Your task to perform on an android device: Clear the cart on ebay. Search for razer blade on ebay, select the first entry, add it to the cart, then select checkout. Image 0: 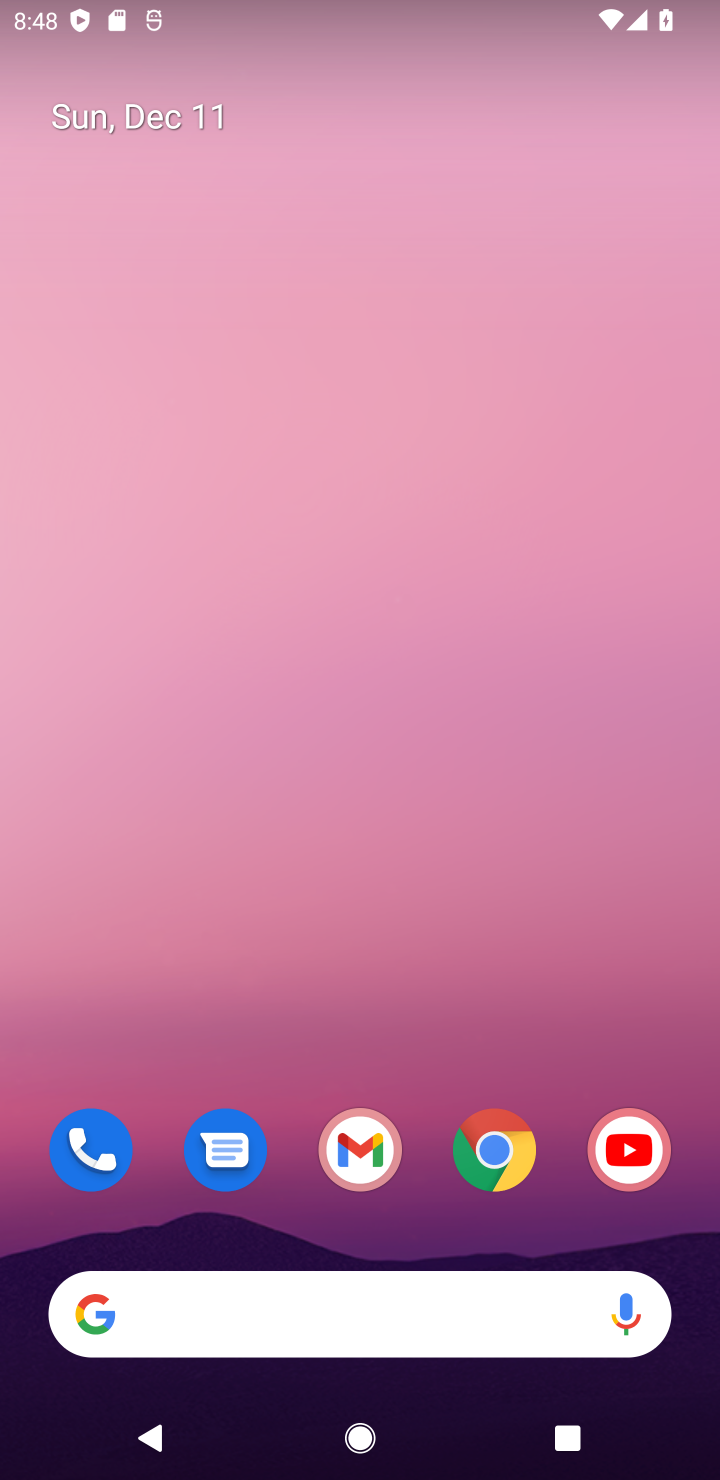
Step 0: click (493, 1151)
Your task to perform on an android device: Clear the cart on ebay. Search for razer blade on ebay, select the first entry, add it to the cart, then select checkout. Image 1: 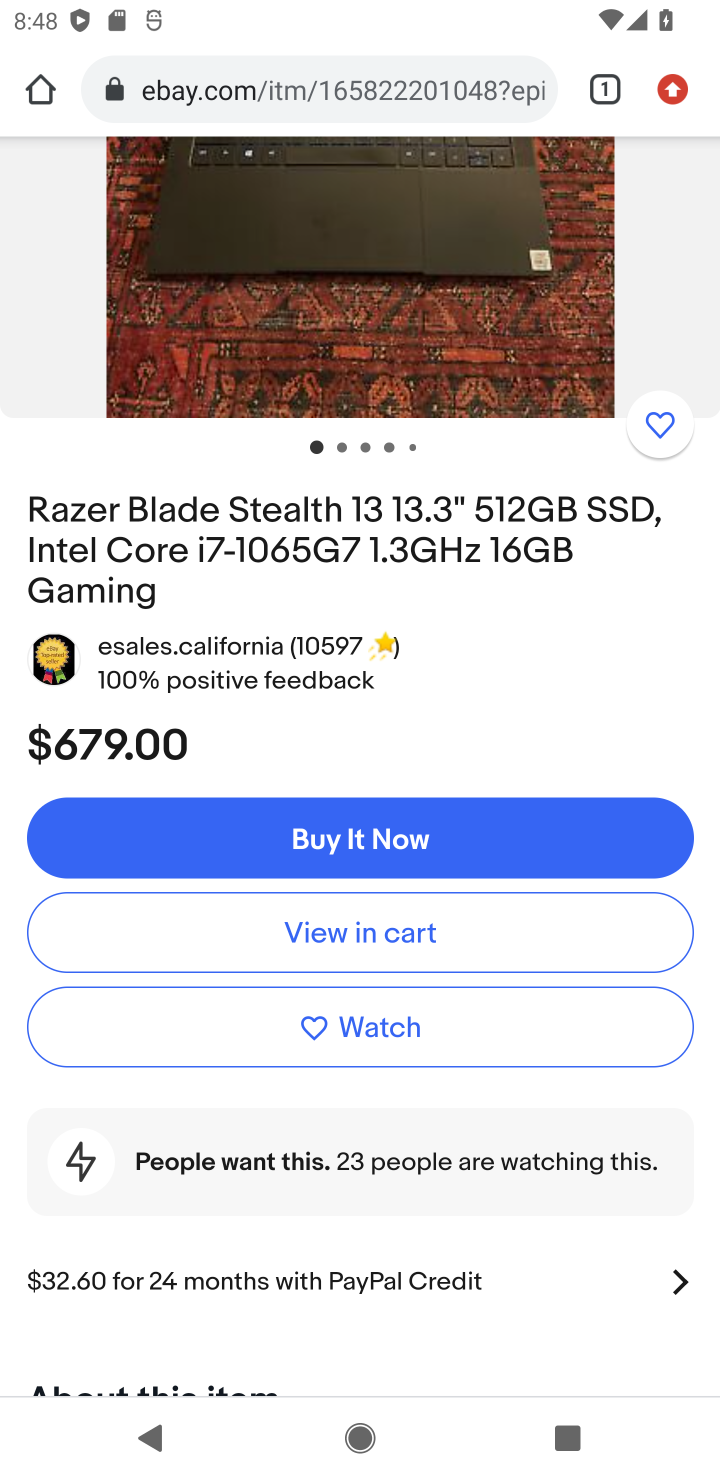
Step 1: click (367, 87)
Your task to perform on an android device: Clear the cart on ebay. Search for razer blade on ebay, select the first entry, add it to the cart, then select checkout. Image 2: 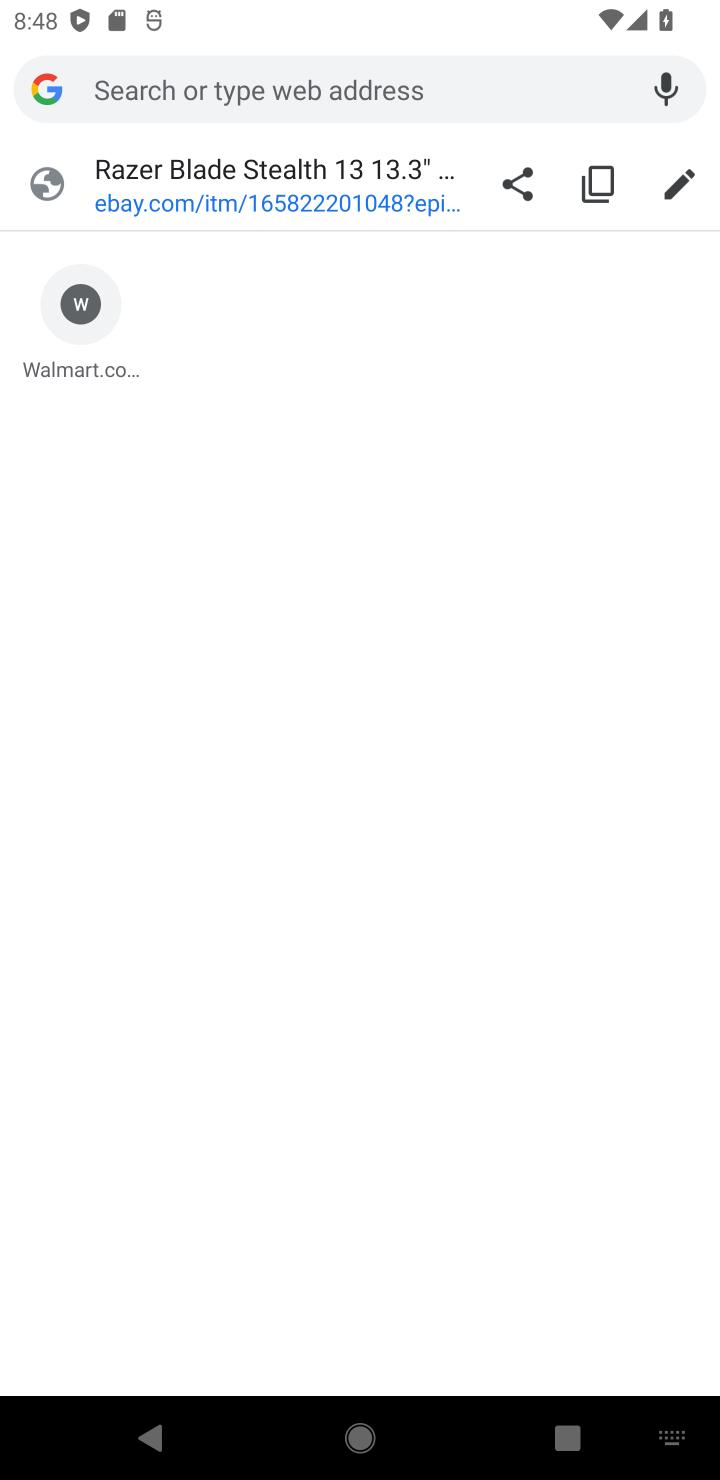
Step 2: type "ebay"
Your task to perform on an android device: Clear the cart on ebay. Search for razer blade on ebay, select the first entry, add it to the cart, then select checkout. Image 3: 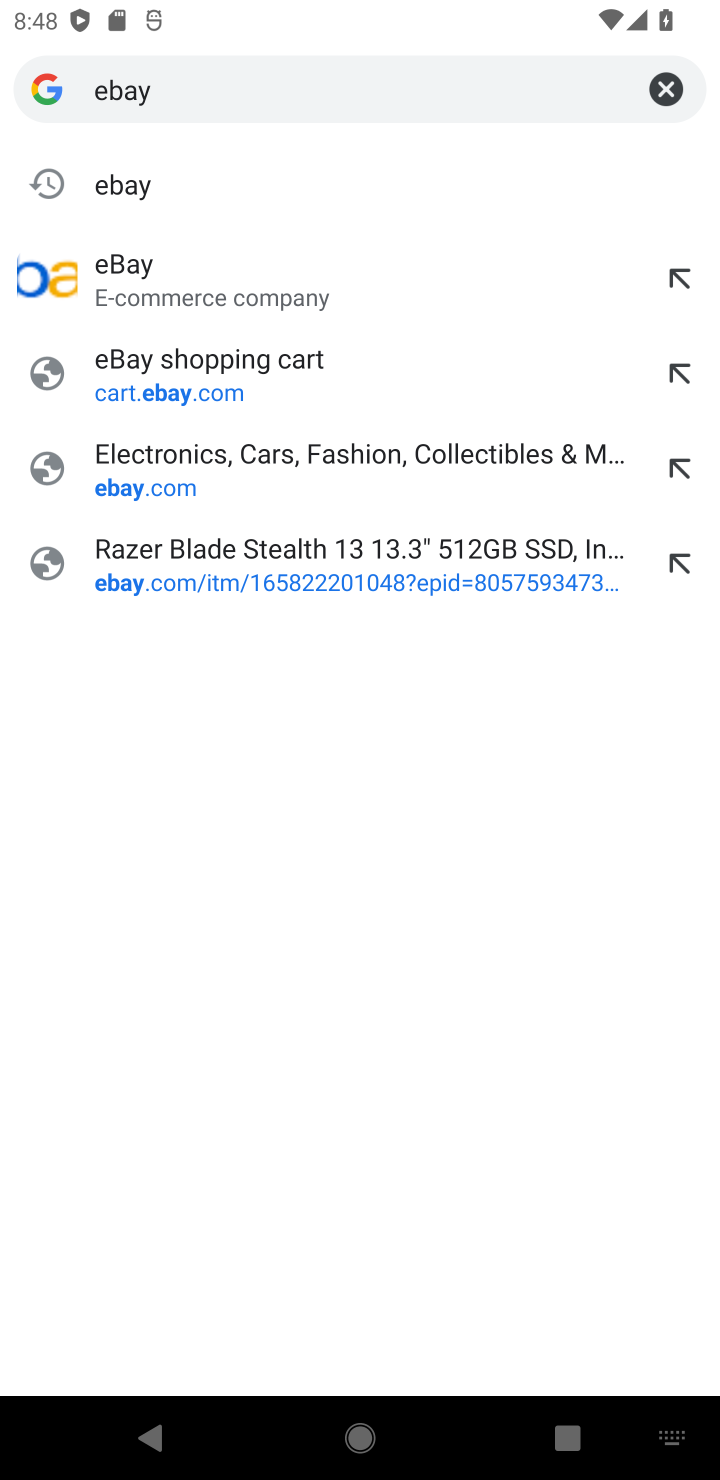
Step 3: click (133, 184)
Your task to perform on an android device: Clear the cart on ebay. Search for razer blade on ebay, select the first entry, add it to the cart, then select checkout. Image 4: 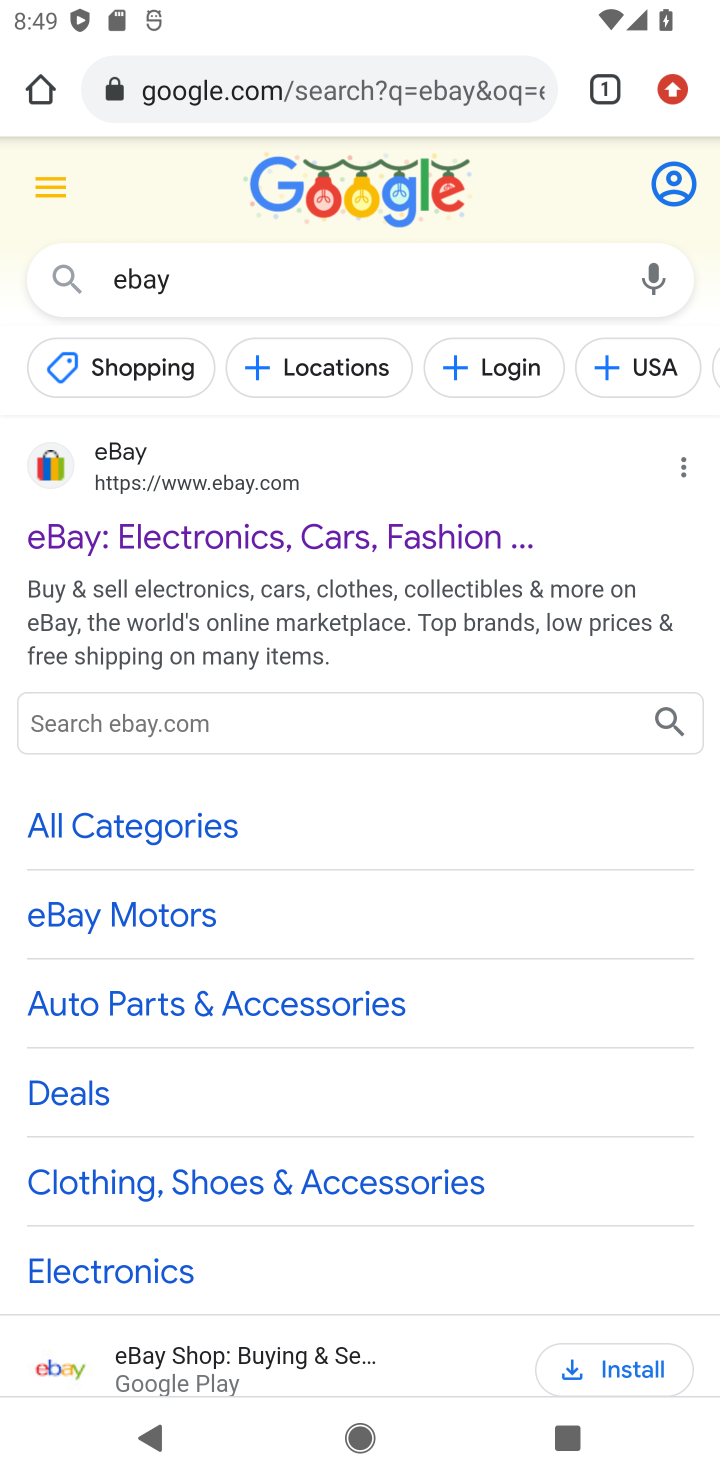
Step 4: click (141, 493)
Your task to perform on an android device: Clear the cart on ebay. Search for razer blade on ebay, select the first entry, add it to the cart, then select checkout. Image 5: 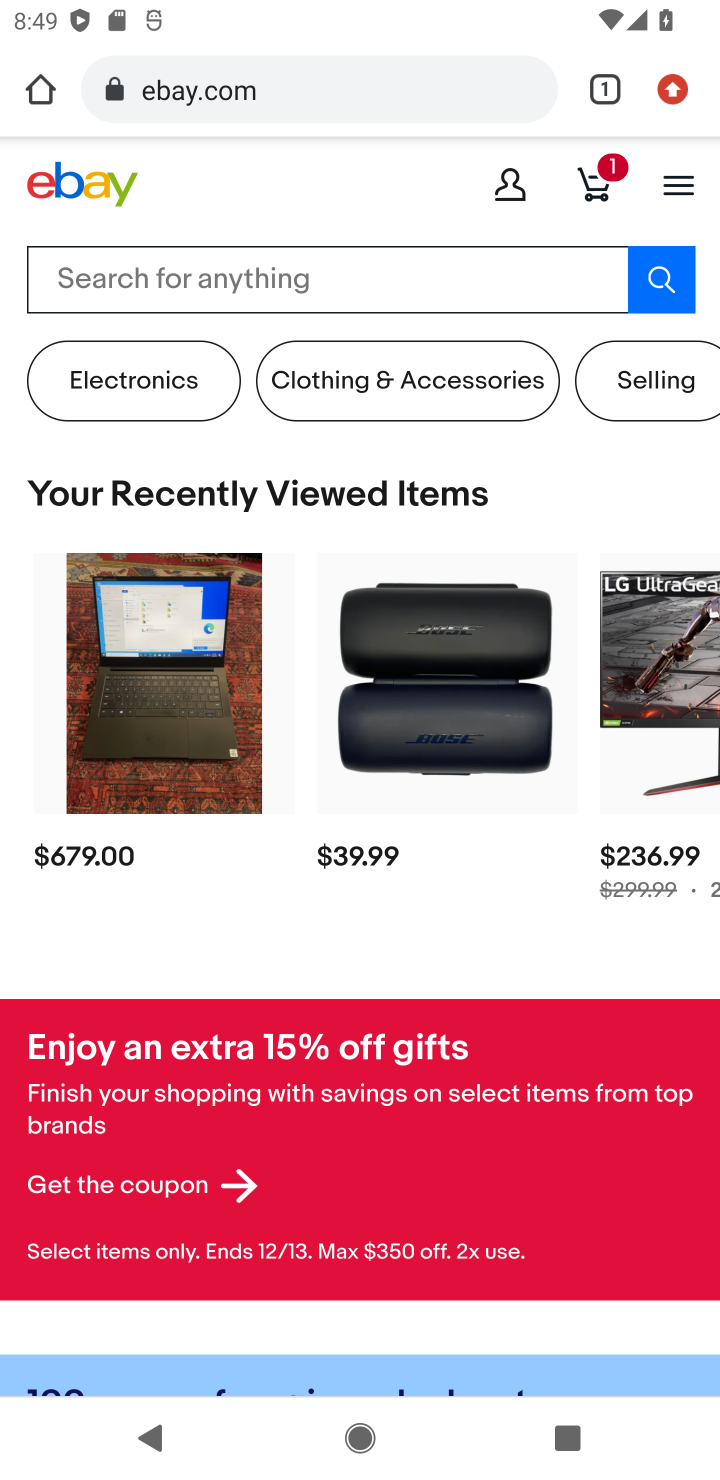
Step 5: click (593, 194)
Your task to perform on an android device: Clear the cart on ebay. Search for razer blade on ebay, select the first entry, add it to the cart, then select checkout. Image 6: 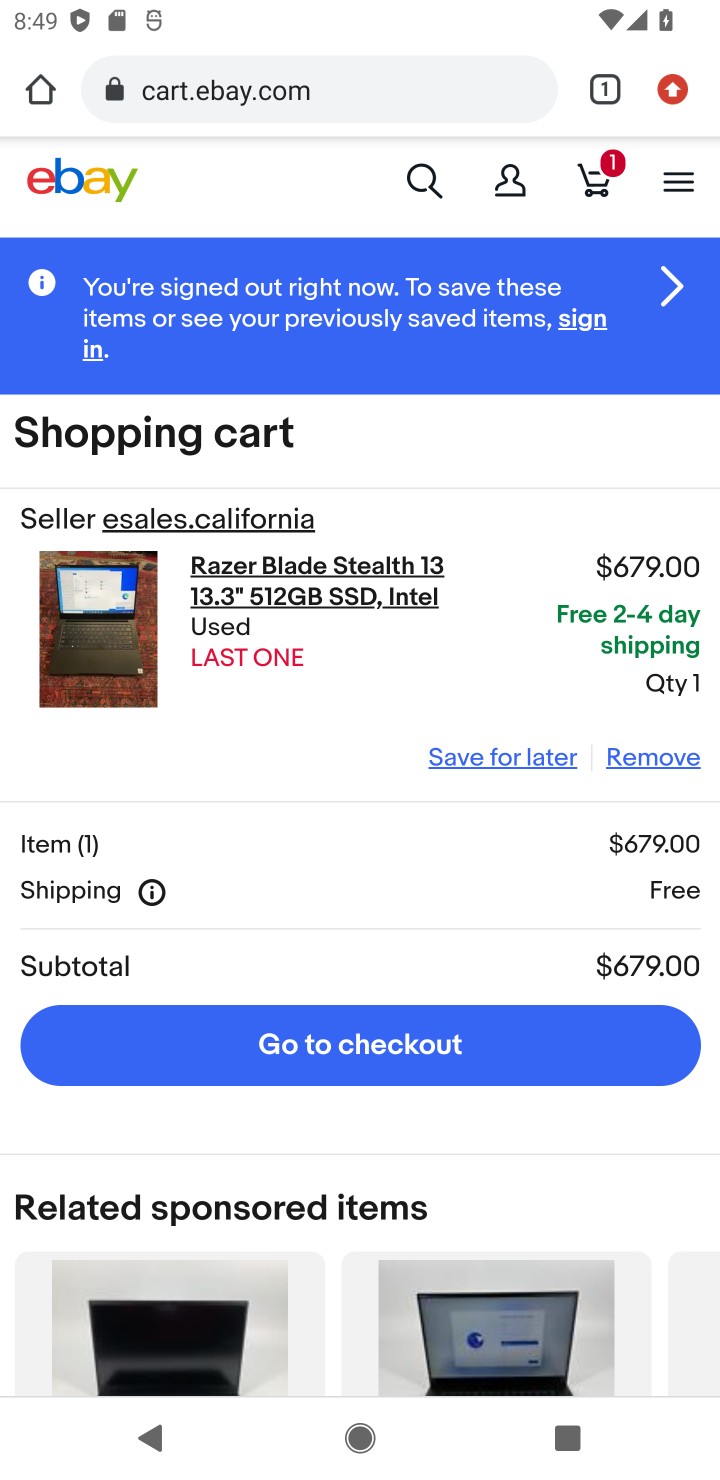
Step 6: click (637, 752)
Your task to perform on an android device: Clear the cart on ebay. Search for razer blade on ebay, select the first entry, add it to the cart, then select checkout. Image 7: 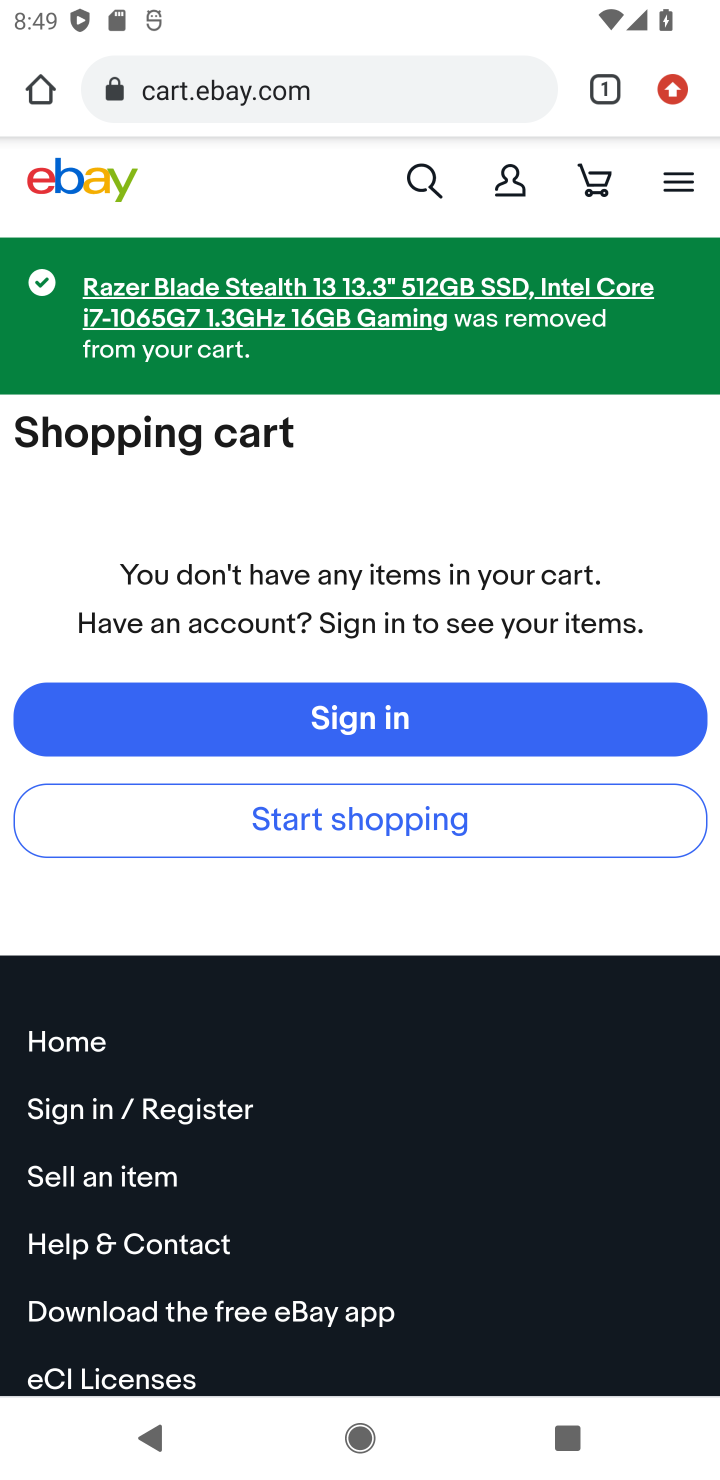
Step 7: click (414, 180)
Your task to perform on an android device: Clear the cart on ebay. Search for razer blade on ebay, select the first entry, add it to the cart, then select checkout. Image 8: 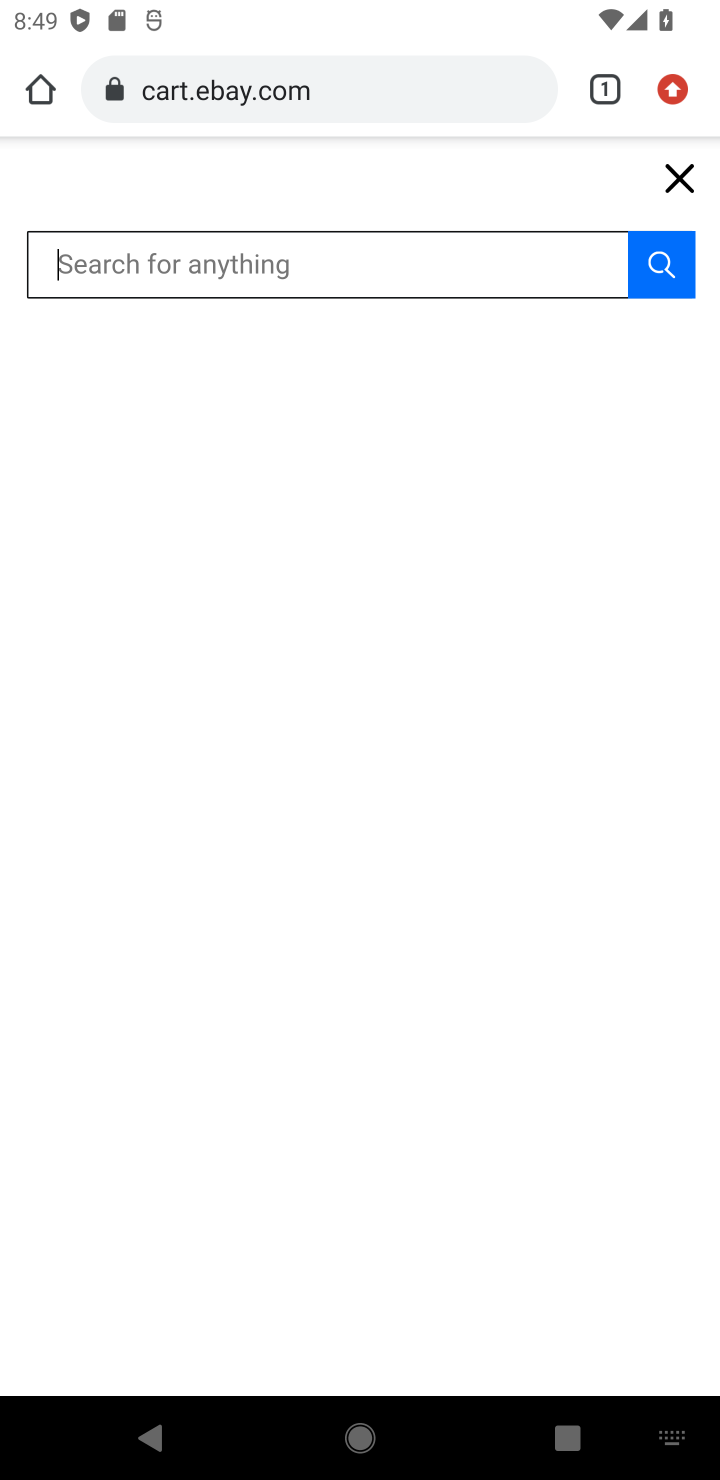
Step 8: type "razer blade"
Your task to perform on an android device: Clear the cart on ebay. Search for razer blade on ebay, select the first entry, add it to the cart, then select checkout. Image 9: 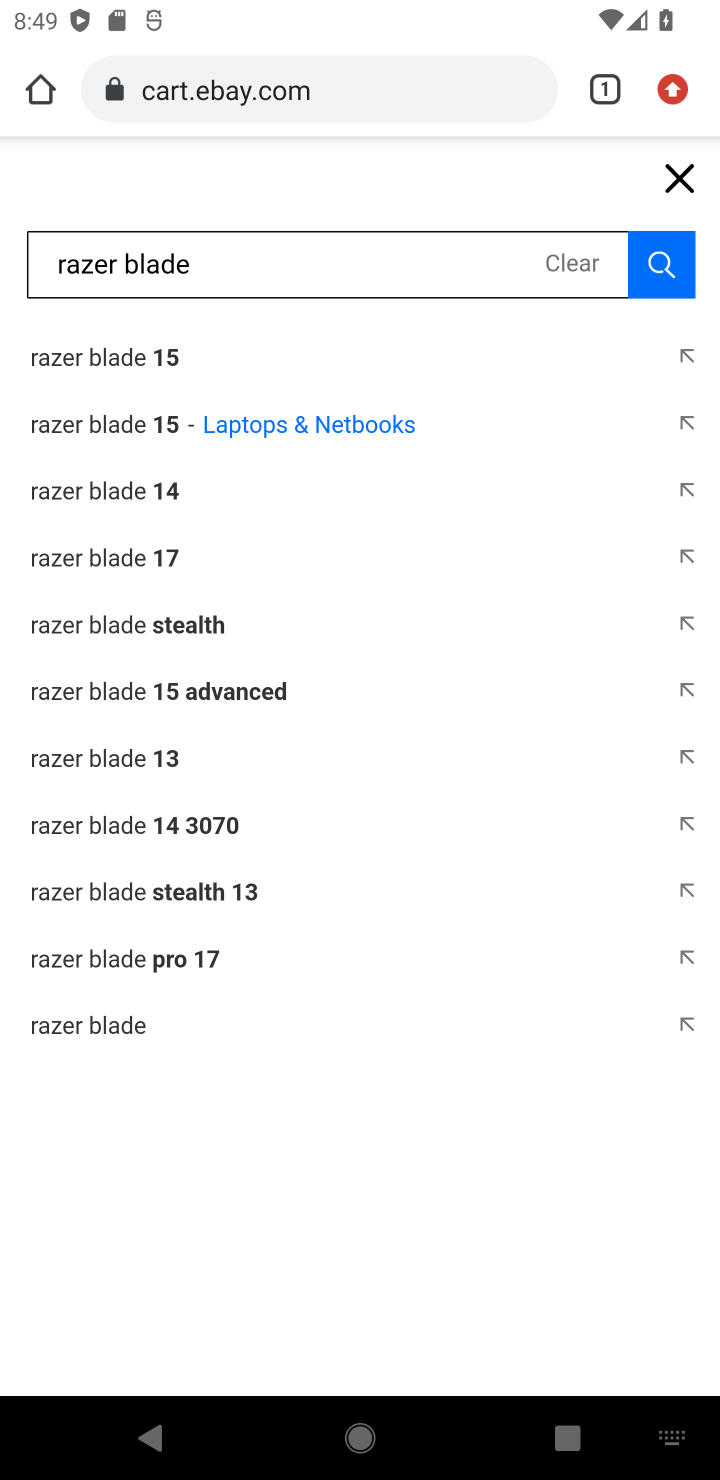
Step 9: click (112, 1034)
Your task to perform on an android device: Clear the cart on ebay. Search for razer blade on ebay, select the first entry, add it to the cart, then select checkout. Image 10: 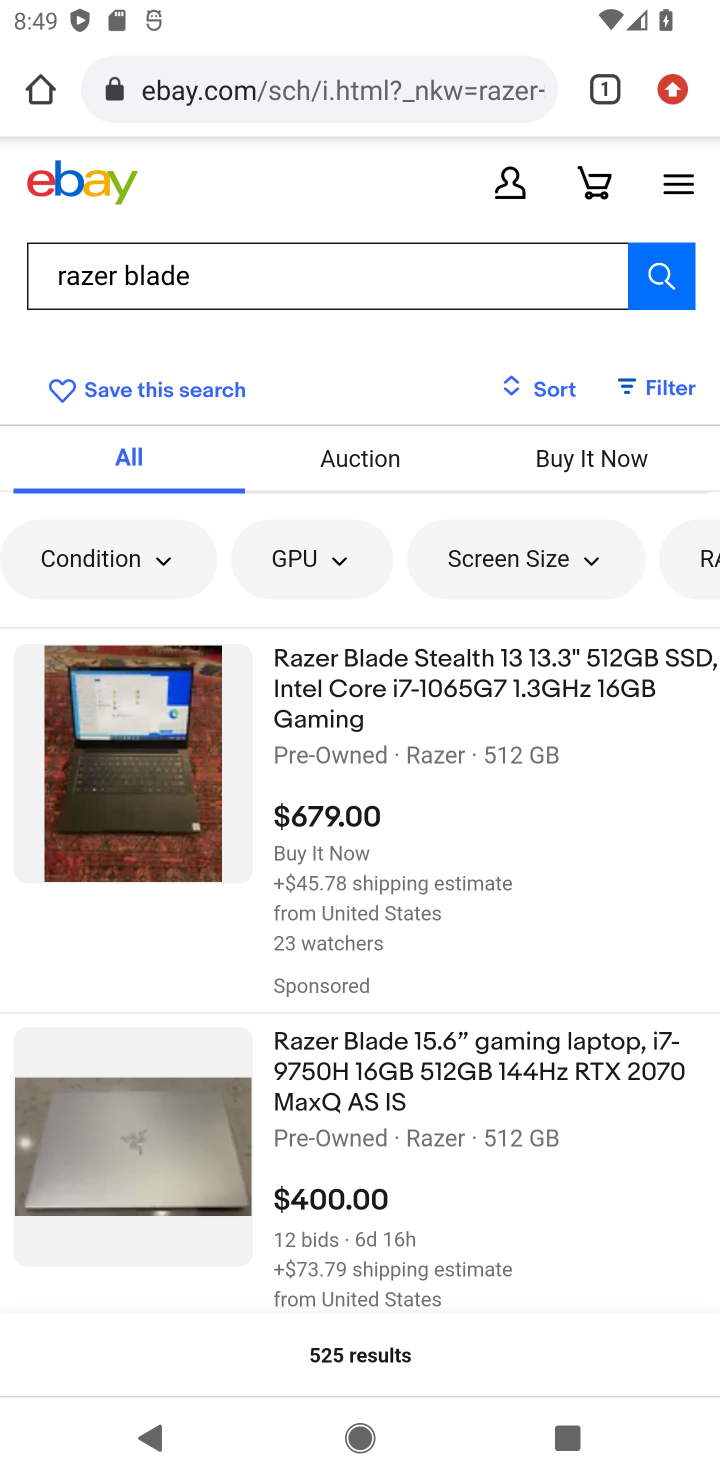
Step 10: click (463, 679)
Your task to perform on an android device: Clear the cart on ebay. Search for razer blade on ebay, select the first entry, add it to the cart, then select checkout. Image 11: 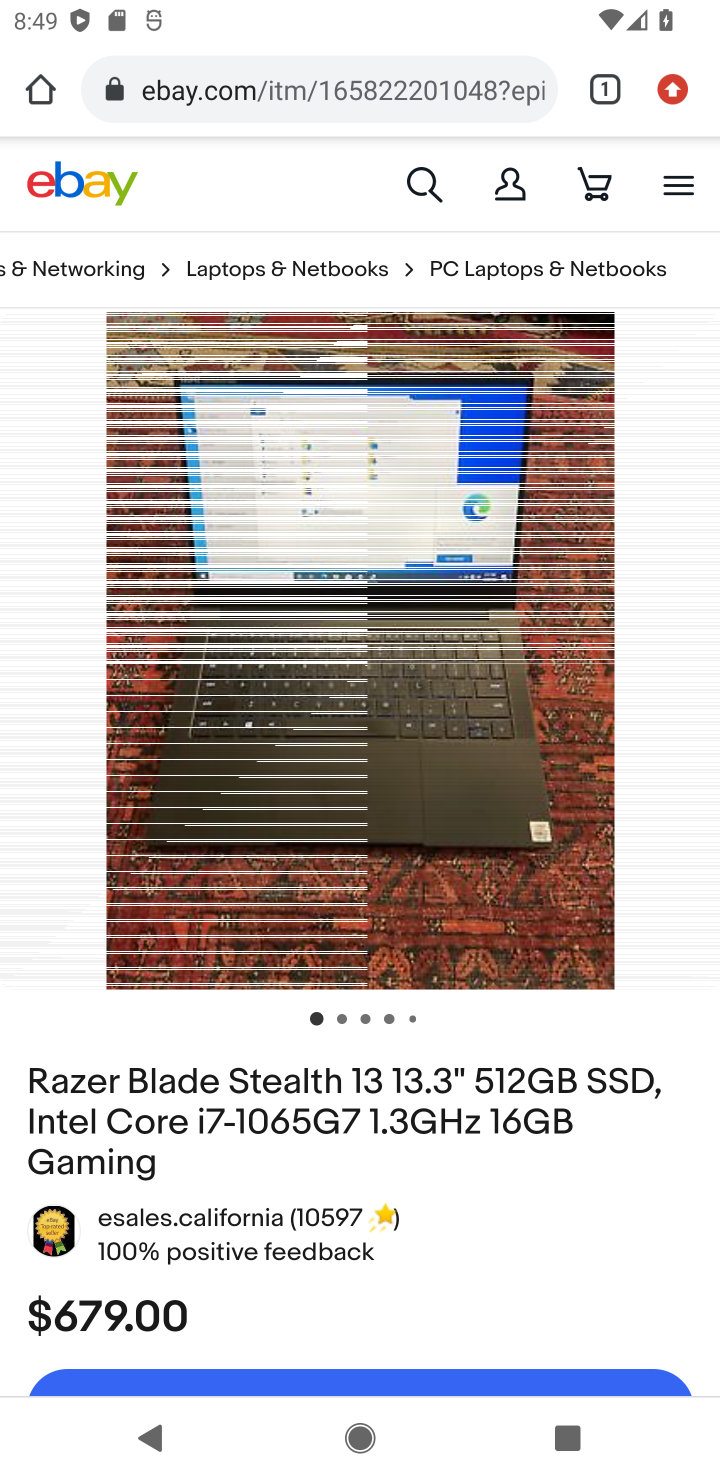
Step 11: drag from (506, 1219) to (523, 532)
Your task to perform on an android device: Clear the cart on ebay. Search for razer blade on ebay, select the first entry, add it to the cart, then select checkout. Image 12: 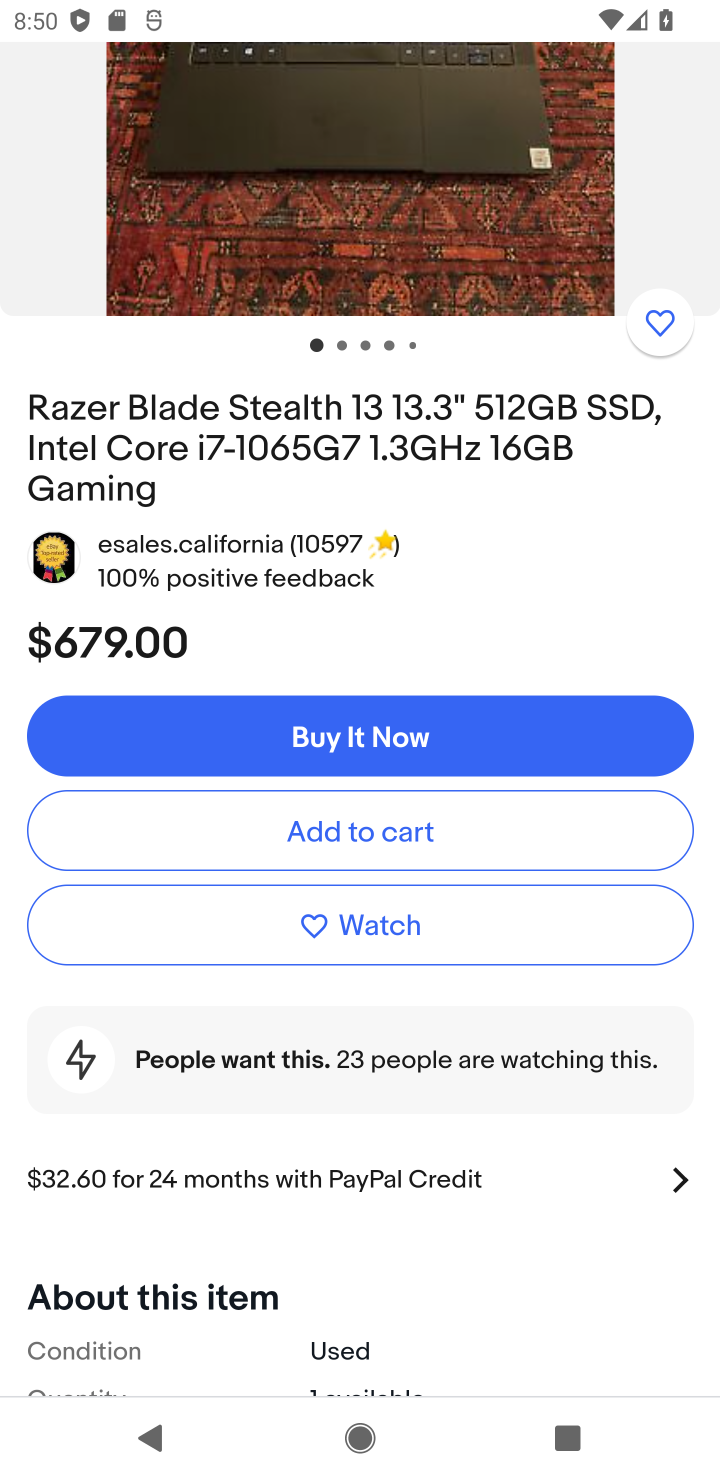
Step 12: click (346, 831)
Your task to perform on an android device: Clear the cart on ebay. Search for razer blade on ebay, select the first entry, add it to the cart, then select checkout. Image 13: 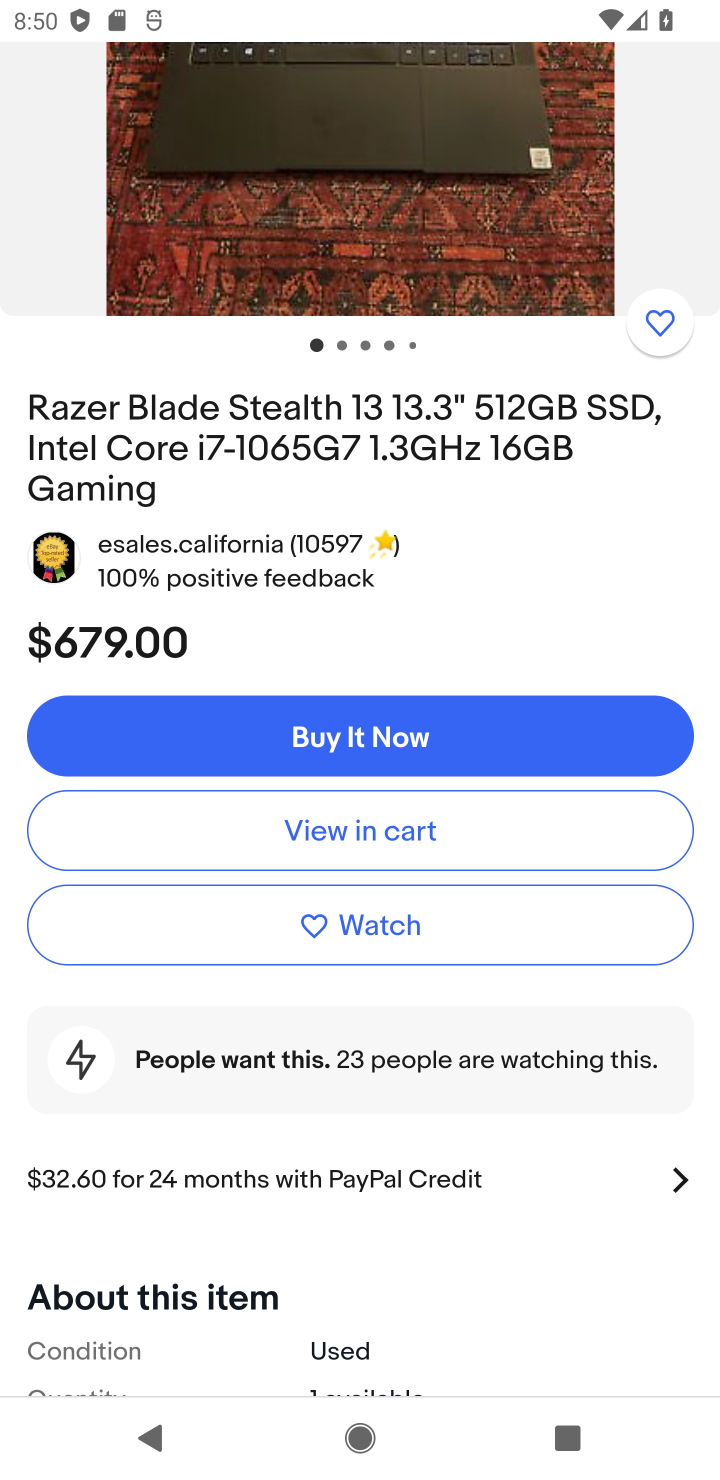
Step 13: click (346, 831)
Your task to perform on an android device: Clear the cart on ebay. Search for razer blade on ebay, select the first entry, add it to the cart, then select checkout. Image 14: 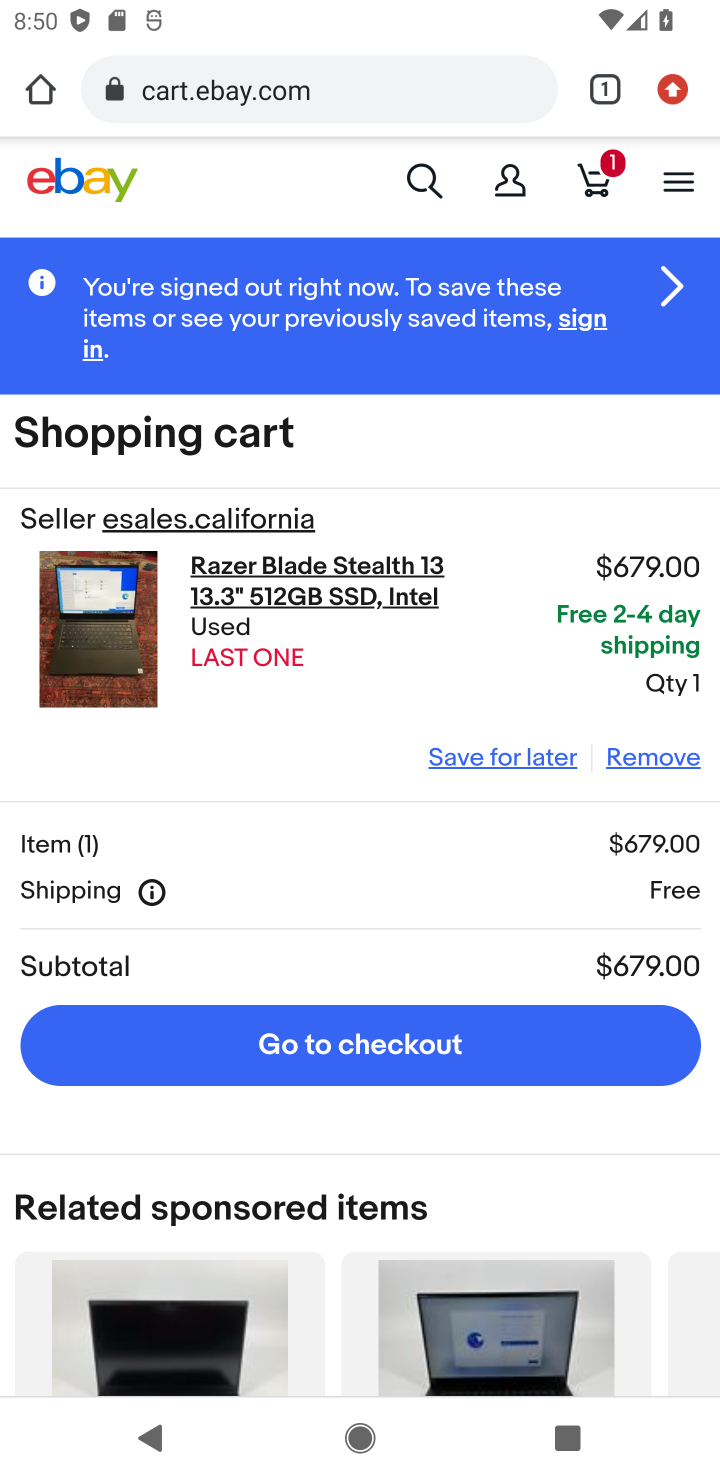
Step 14: click (401, 1054)
Your task to perform on an android device: Clear the cart on ebay. Search for razer blade on ebay, select the first entry, add it to the cart, then select checkout. Image 15: 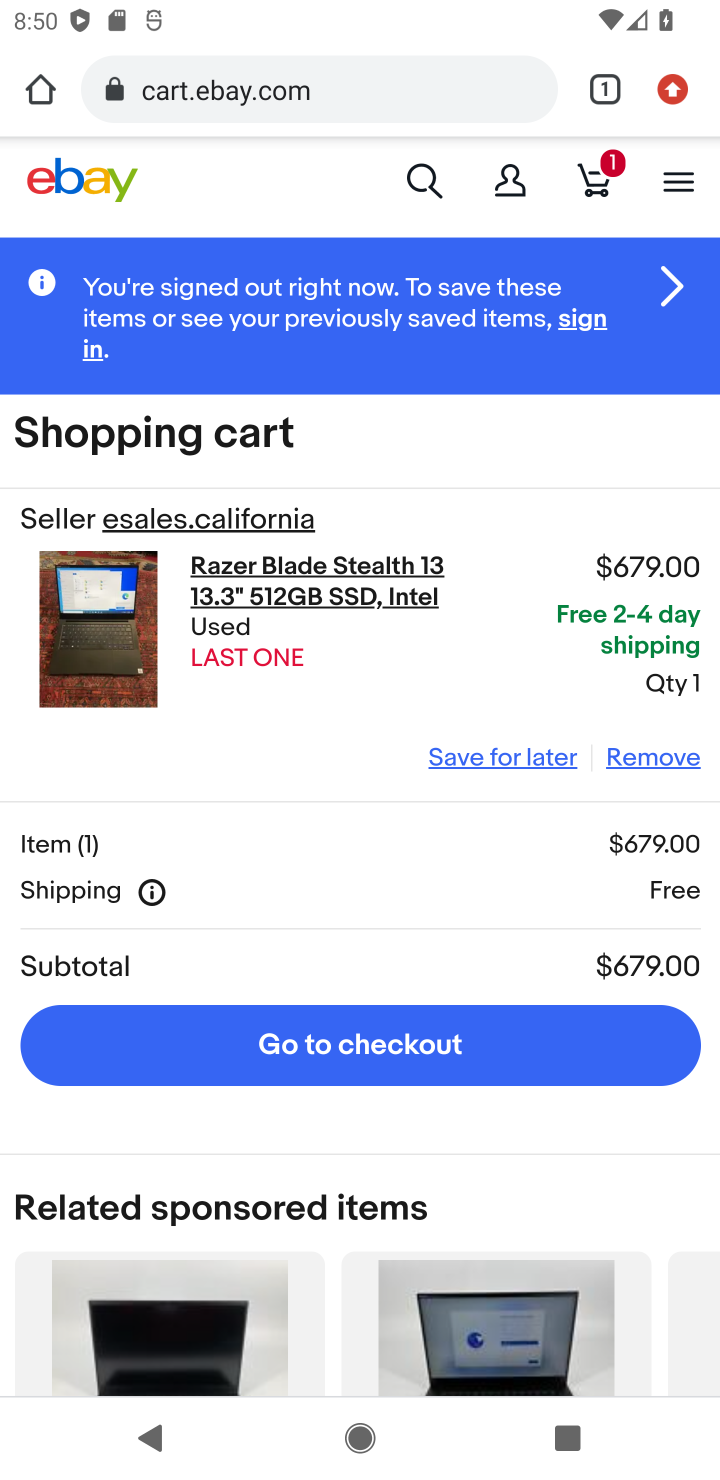
Step 15: click (426, 1045)
Your task to perform on an android device: Clear the cart on ebay. Search for razer blade on ebay, select the first entry, add it to the cart, then select checkout. Image 16: 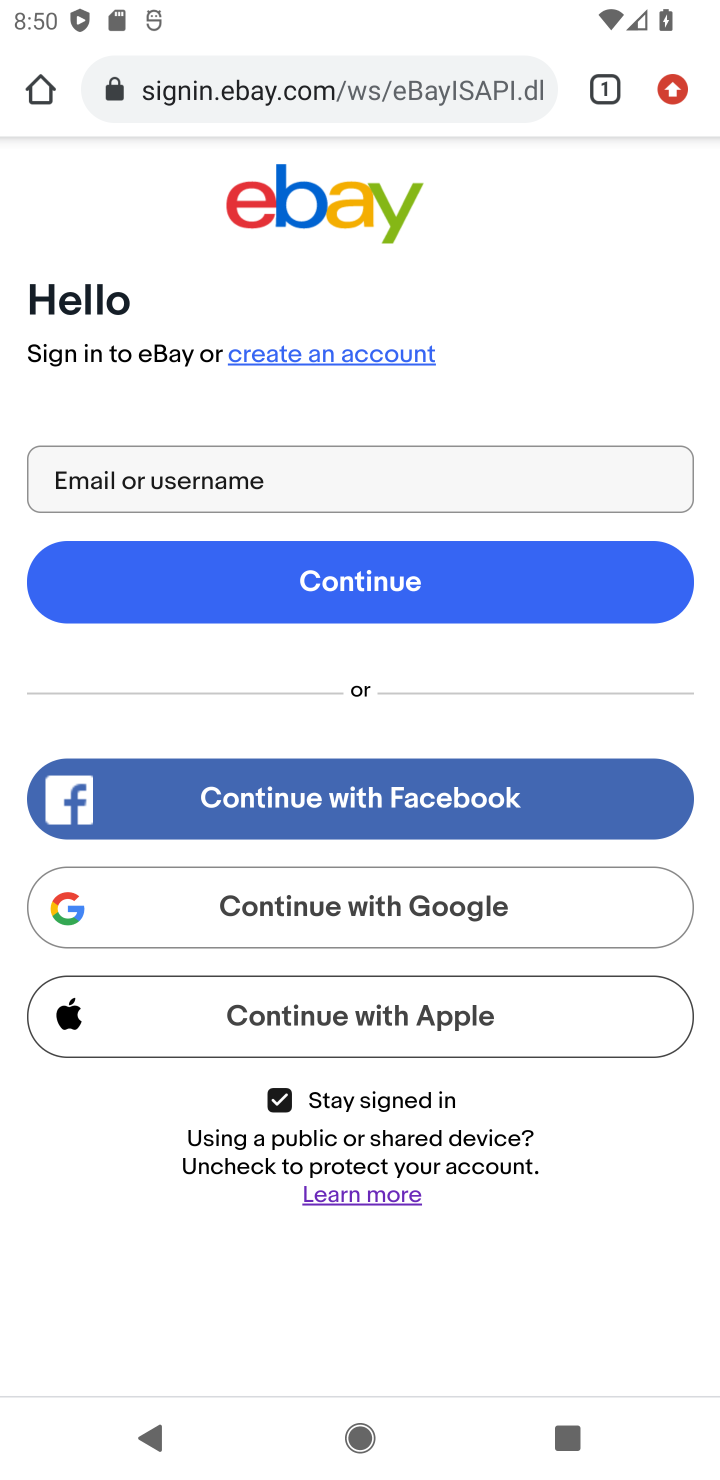
Step 16: task complete